Your task to perform on an android device: remove spam from my inbox in the gmail app Image 0: 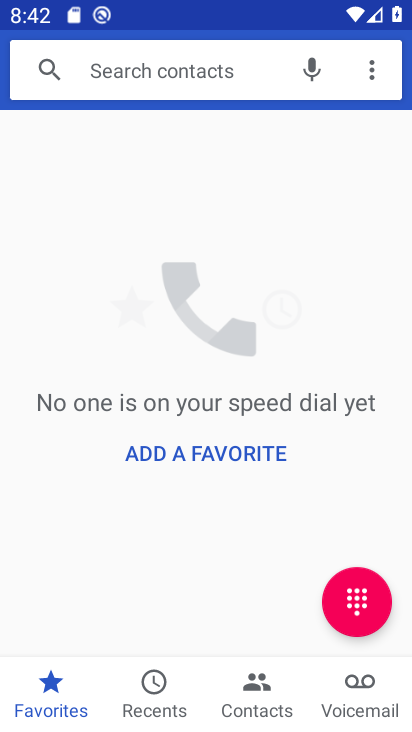
Step 0: press home button
Your task to perform on an android device: remove spam from my inbox in the gmail app Image 1: 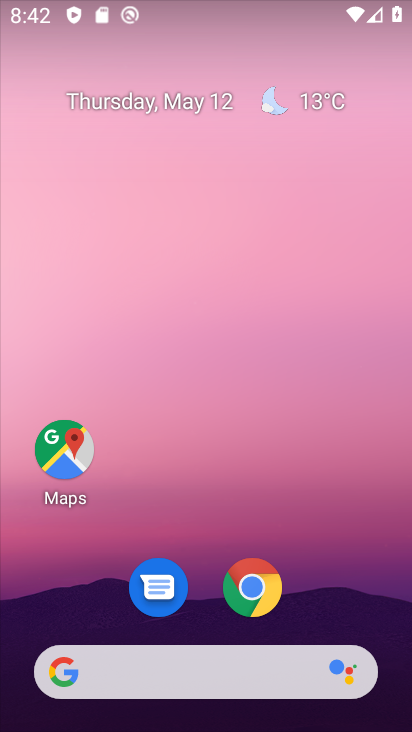
Step 1: drag from (351, 585) to (354, 7)
Your task to perform on an android device: remove spam from my inbox in the gmail app Image 2: 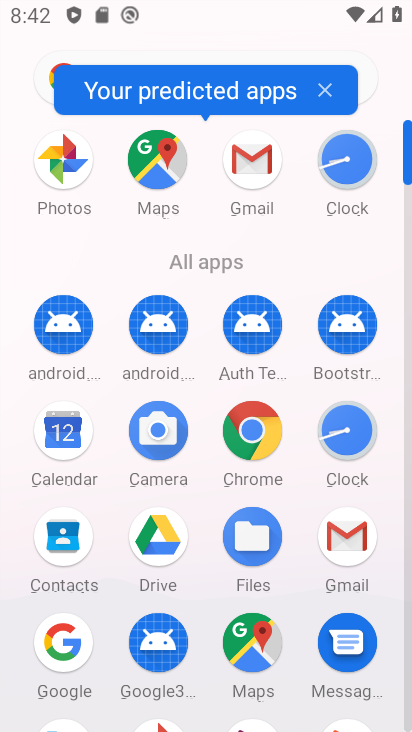
Step 2: click (261, 160)
Your task to perform on an android device: remove spam from my inbox in the gmail app Image 3: 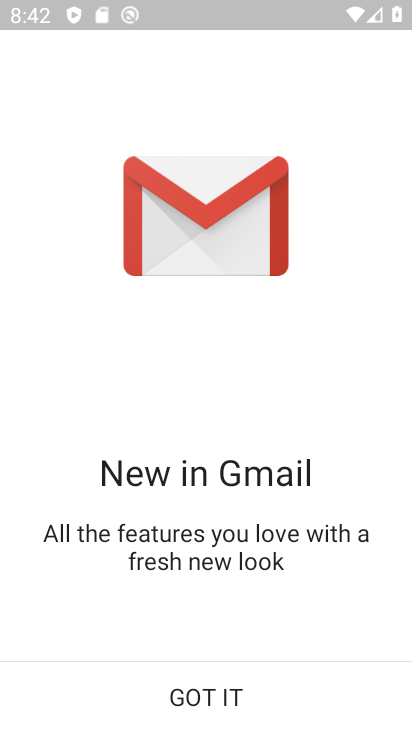
Step 3: click (231, 697)
Your task to perform on an android device: remove spam from my inbox in the gmail app Image 4: 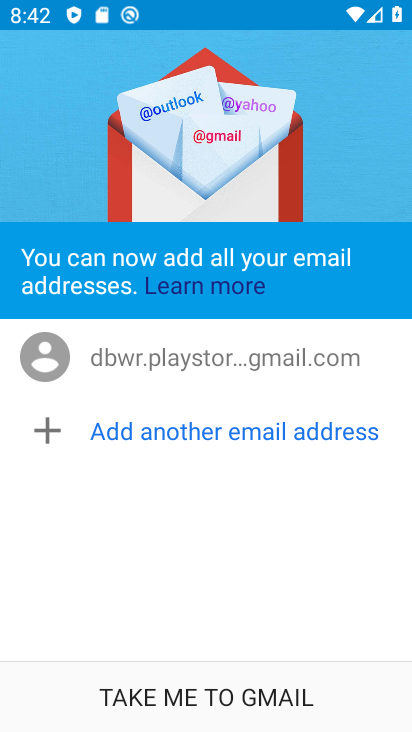
Step 4: click (239, 690)
Your task to perform on an android device: remove spam from my inbox in the gmail app Image 5: 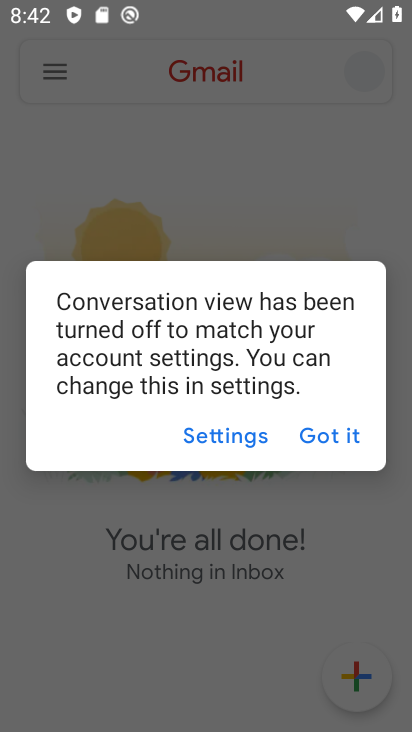
Step 5: click (333, 437)
Your task to perform on an android device: remove spam from my inbox in the gmail app Image 6: 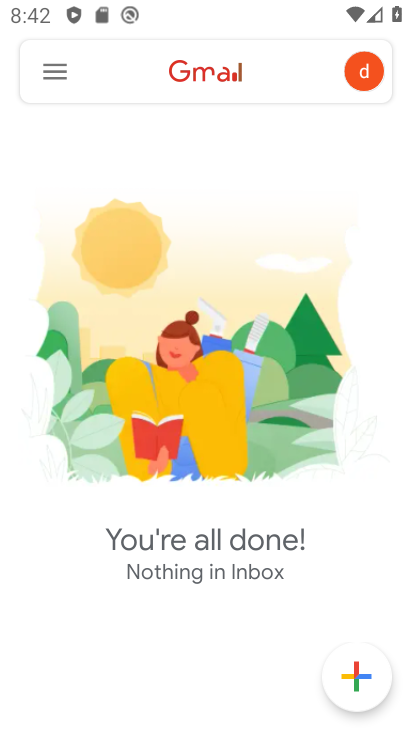
Step 6: click (43, 67)
Your task to perform on an android device: remove spam from my inbox in the gmail app Image 7: 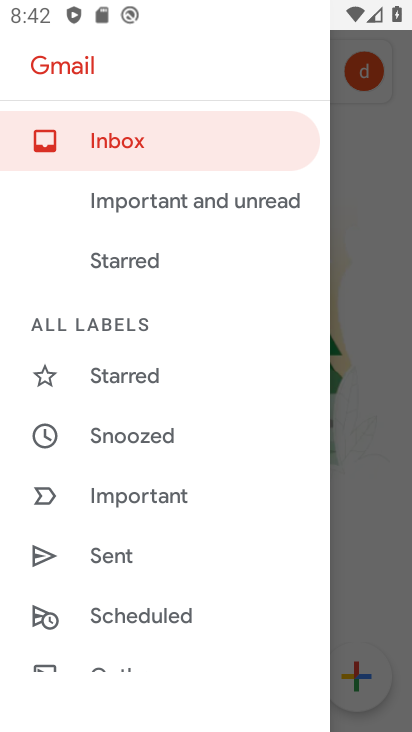
Step 7: drag from (180, 589) to (249, 264)
Your task to perform on an android device: remove spam from my inbox in the gmail app Image 8: 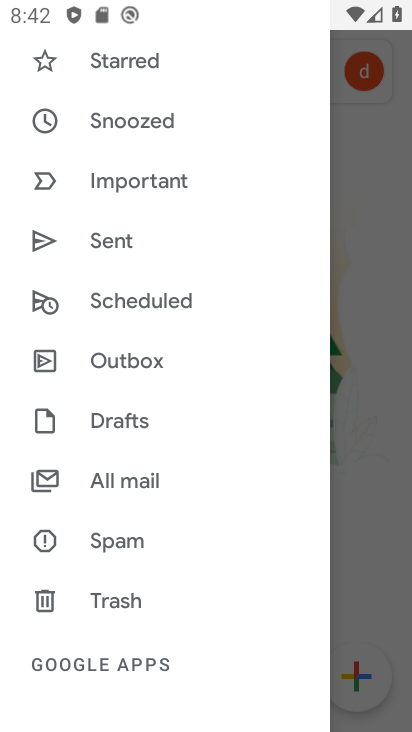
Step 8: click (120, 556)
Your task to perform on an android device: remove spam from my inbox in the gmail app Image 9: 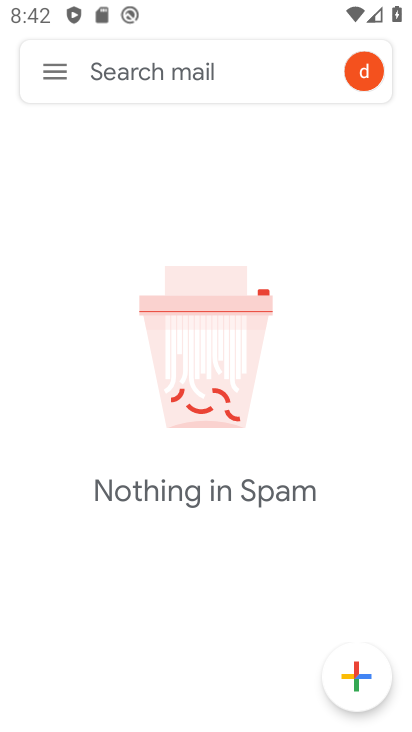
Step 9: task complete